Your task to perform on an android device: What's the weather today? Image 0: 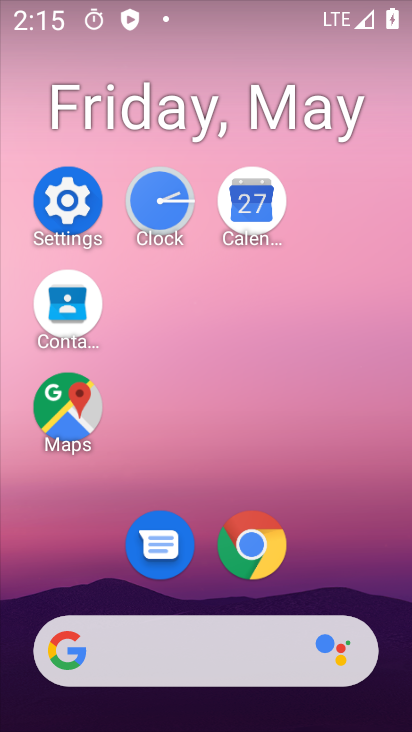
Step 0: drag from (348, 491) to (374, 123)
Your task to perform on an android device: What's the weather today? Image 1: 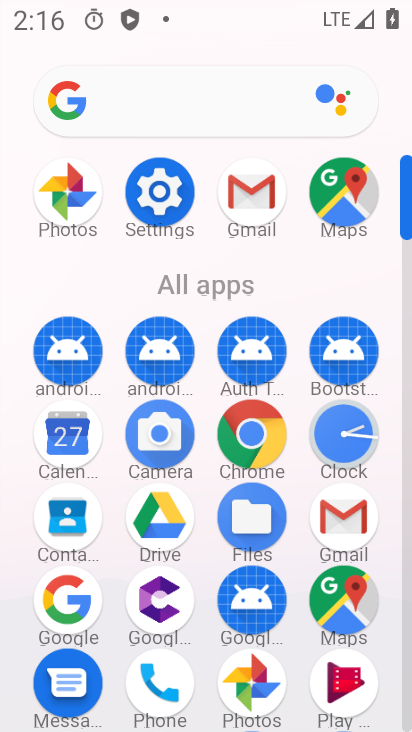
Step 1: click (59, 616)
Your task to perform on an android device: What's the weather today? Image 2: 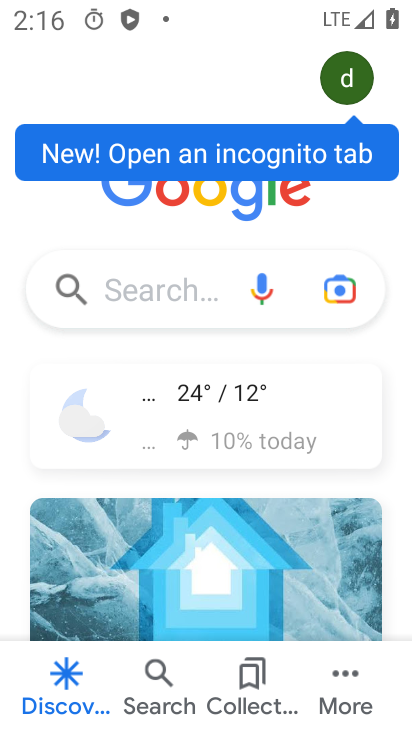
Step 2: click (175, 301)
Your task to perform on an android device: What's the weather today? Image 3: 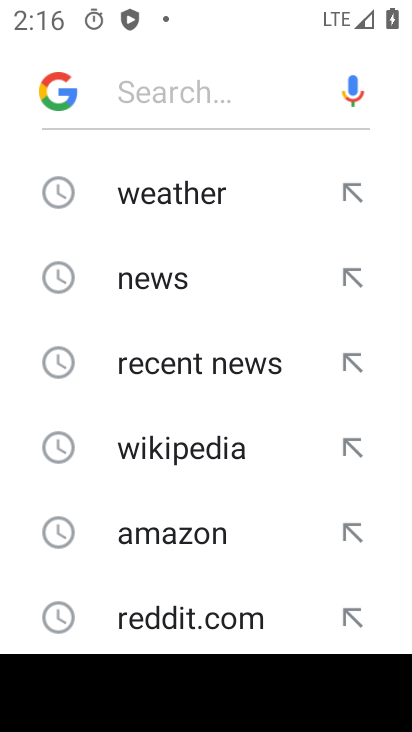
Step 3: click (168, 209)
Your task to perform on an android device: What's the weather today? Image 4: 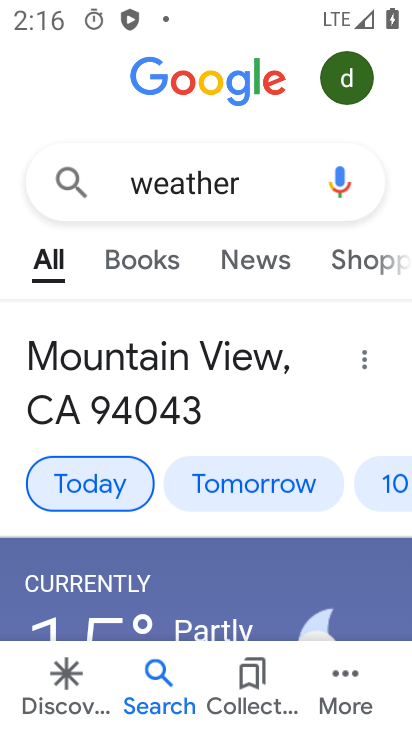
Step 4: task complete